Your task to perform on an android device: Go to display settings Image 0: 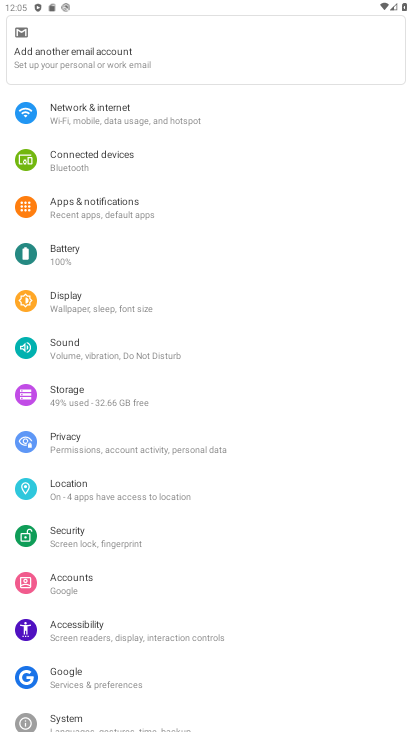
Step 0: click (69, 291)
Your task to perform on an android device: Go to display settings Image 1: 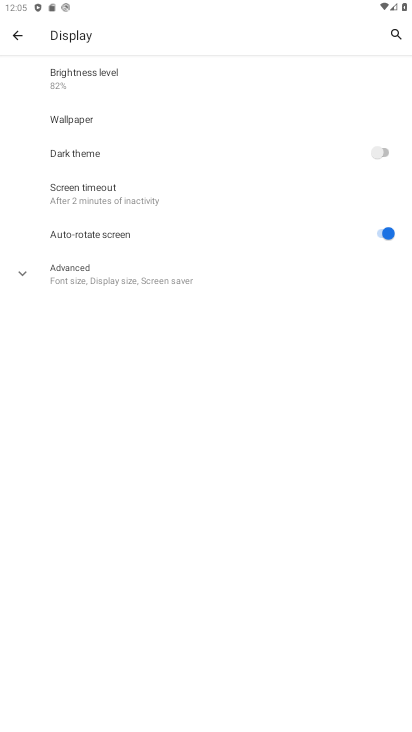
Step 1: task complete